Your task to perform on an android device: star an email in the gmail app Image 0: 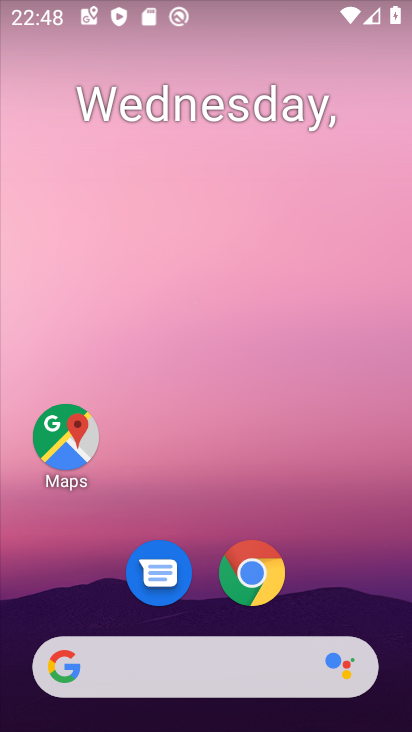
Step 0: press home button
Your task to perform on an android device: star an email in the gmail app Image 1: 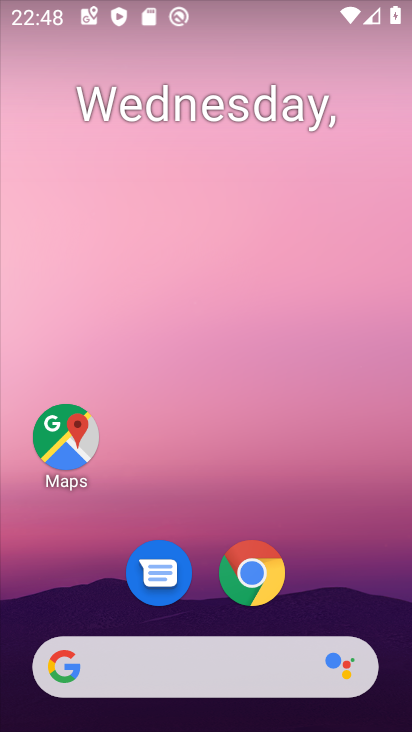
Step 1: drag from (215, 616) to (227, 234)
Your task to perform on an android device: star an email in the gmail app Image 2: 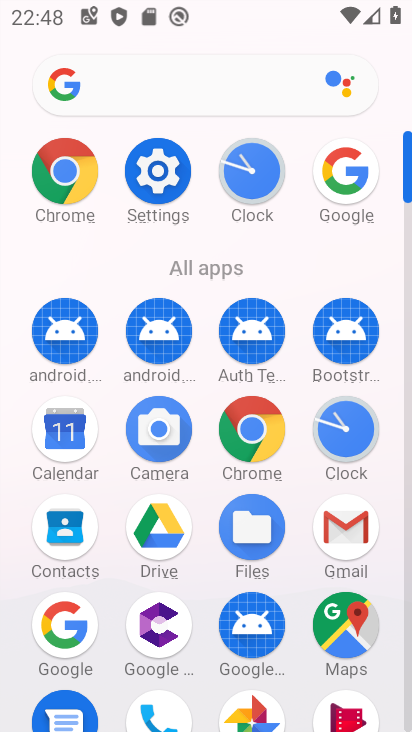
Step 2: click (342, 524)
Your task to perform on an android device: star an email in the gmail app Image 3: 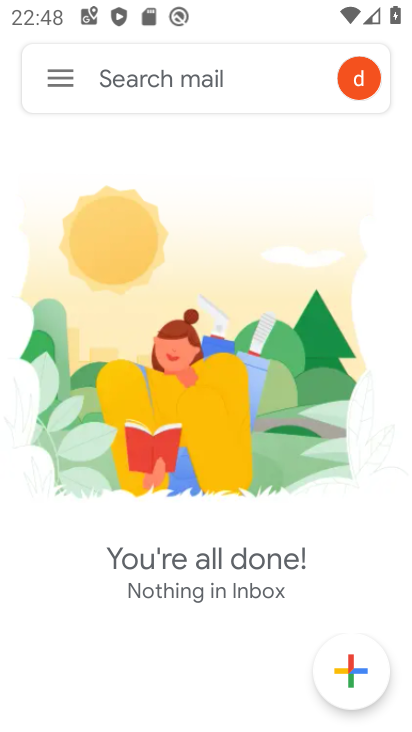
Step 3: click (61, 69)
Your task to perform on an android device: star an email in the gmail app Image 4: 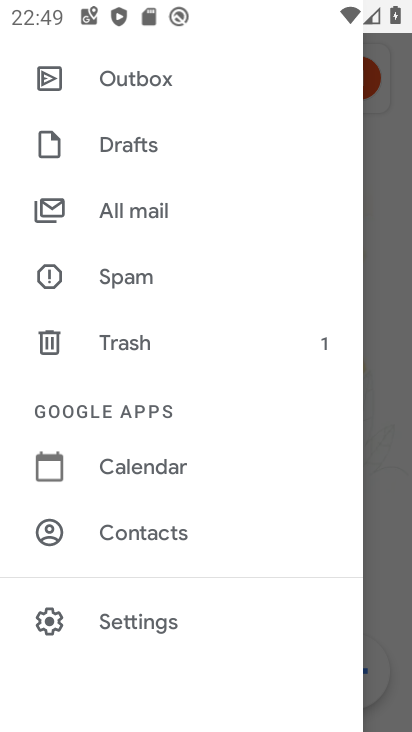
Step 4: drag from (209, 104) to (220, 533)
Your task to perform on an android device: star an email in the gmail app Image 5: 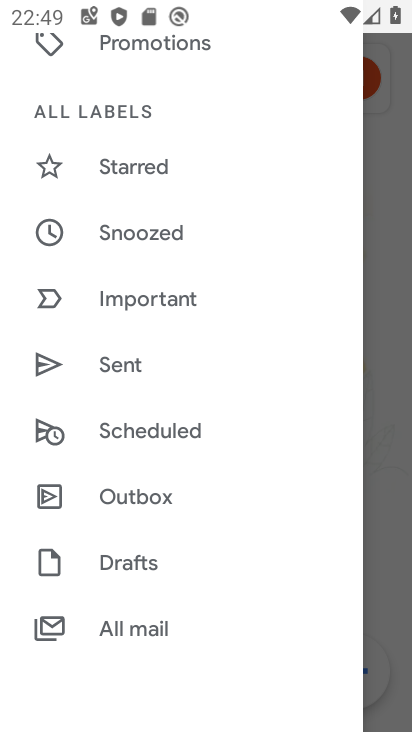
Step 5: drag from (185, 155) to (190, 464)
Your task to perform on an android device: star an email in the gmail app Image 6: 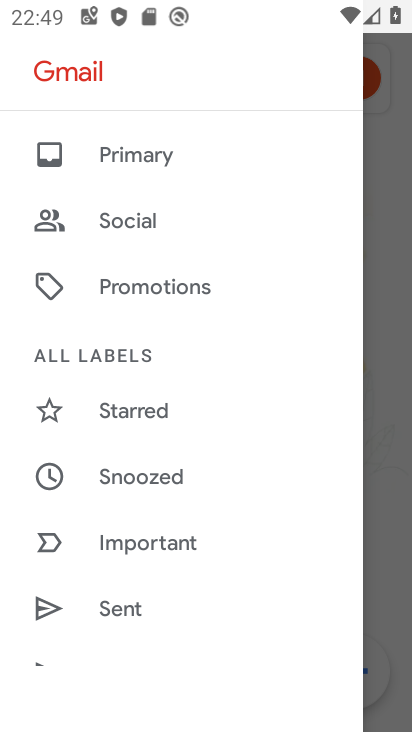
Step 6: click (149, 412)
Your task to perform on an android device: star an email in the gmail app Image 7: 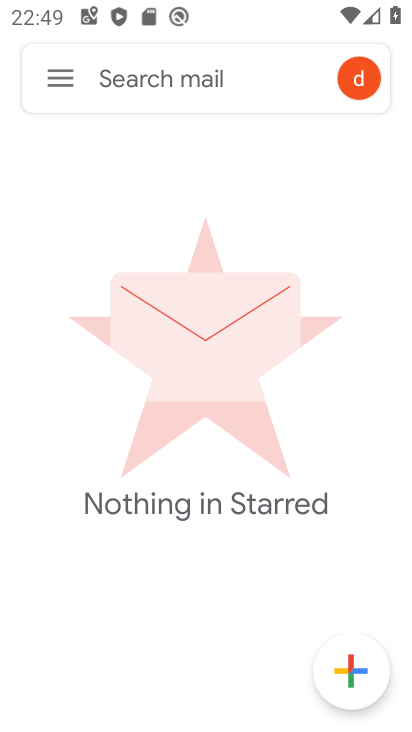
Step 7: task complete